Your task to perform on an android device: turn off improve location accuracy Image 0: 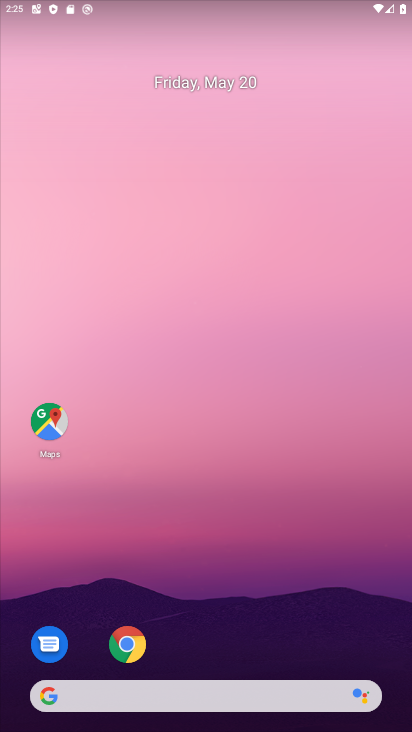
Step 0: drag from (281, 618) to (210, 149)
Your task to perform on an android device: turn off improve location accuracy Image 1: 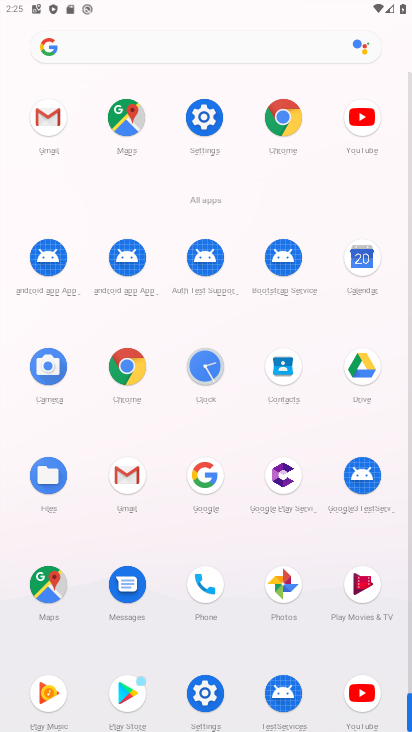
Step 1: click (213, 697)
Your task to perform on an android device: turn off improve location accuracy Image 2: 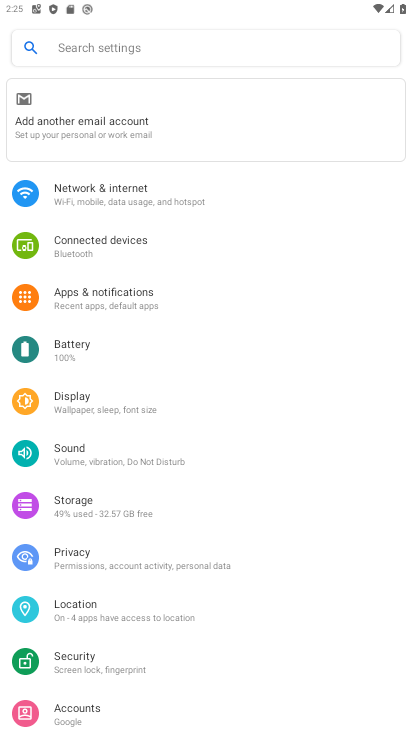
Step 2: click (132, 615)
Your task to perform on an android device: turn off improve location accuracy Image 3: 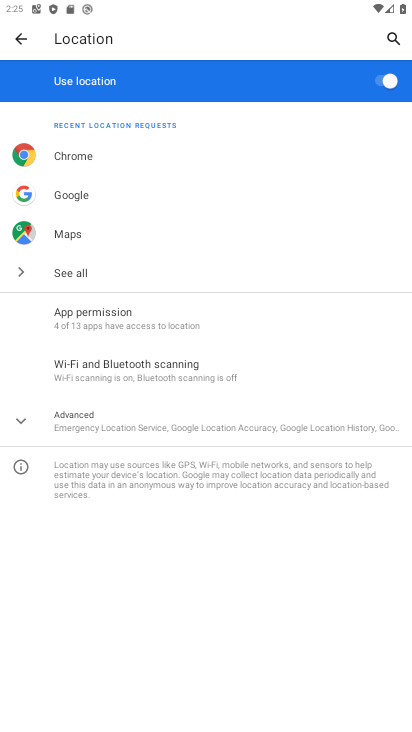
Step 3: click (102, 418)
Your task to perform on an android device: turn off improve location accuracy Image 4: 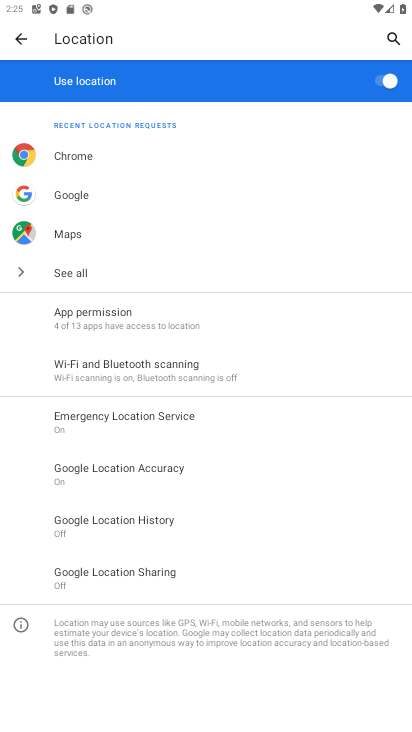
Step 4: click (184, 471)
Your task to perform on an android device: turn off improve location accuracy Image 5: 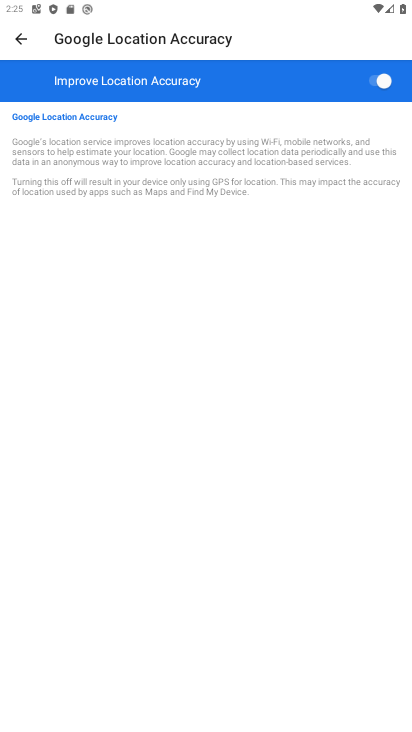
Step 5: click (371, 84)
Your task to perform on an android device: turn off improve location accuracy Image 6: 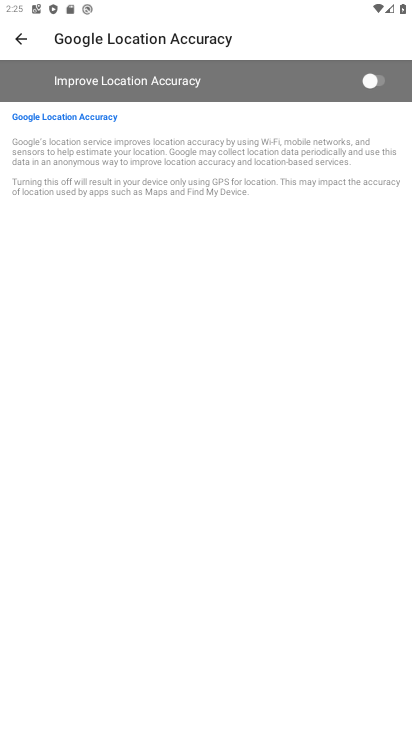
Step 6: task complete